Your task to perform on an android device: move an email to a new category in the gmail app Image 0: 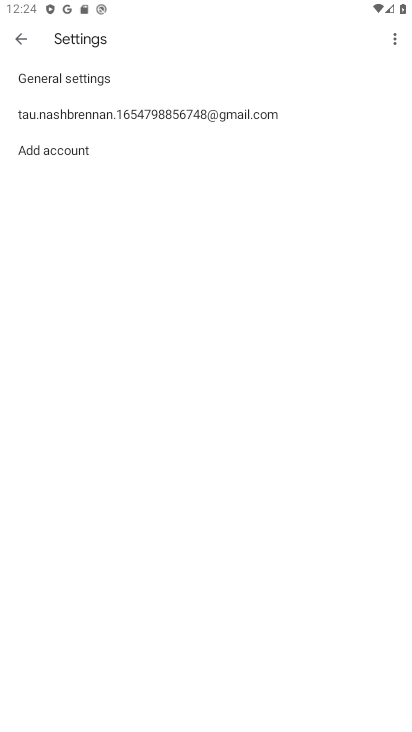
Step 0: click (17, 37)
Your task to perform on an android device: move an email to a new category in the gmail app Image 1: 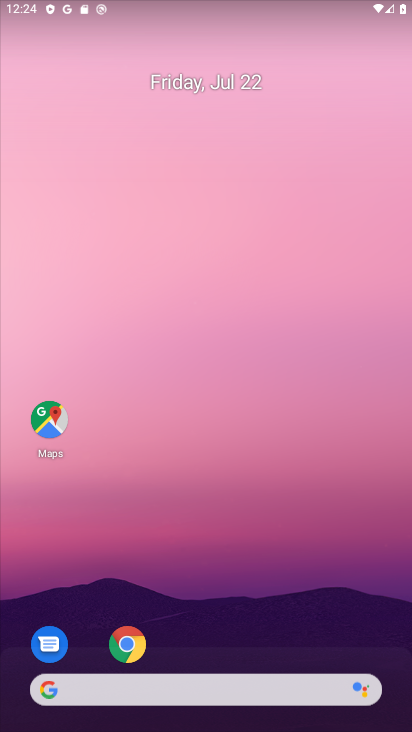
Step 1: drag from (257, 674) to (243, 199)
Your task to perform on an android device: move an email to a new category in the gmail app Image 2: 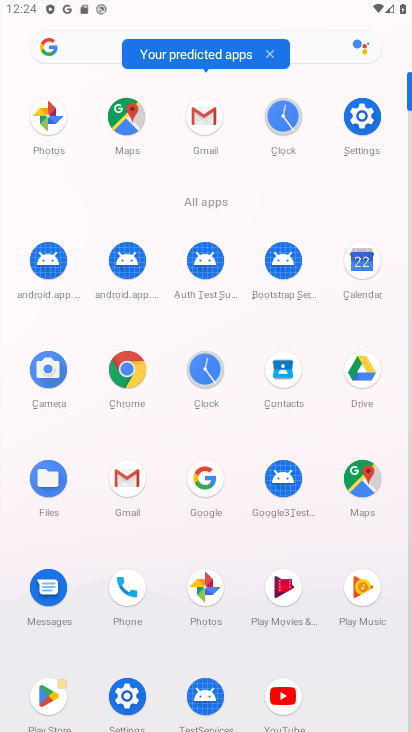
Step 2: click (194, 132)
Your task to perform on an android device: move an email to a new category in the gmail app Image 3: 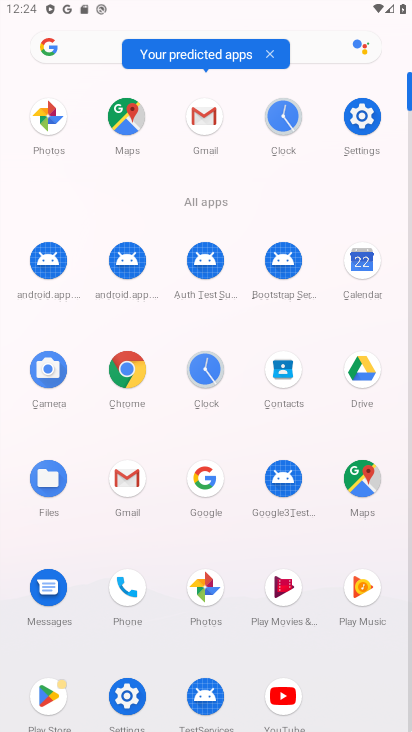
Step 3: click (194, 132)
Your task to perform on an android device: move an email to a new category in the gmail app Image 4: 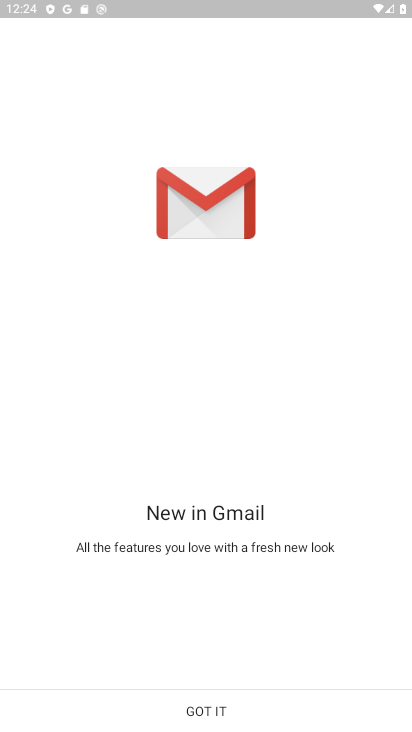
Step 4: click (214, 710)
Your task to perform on an android device: move an email to a new category in the gmail app Image 5: 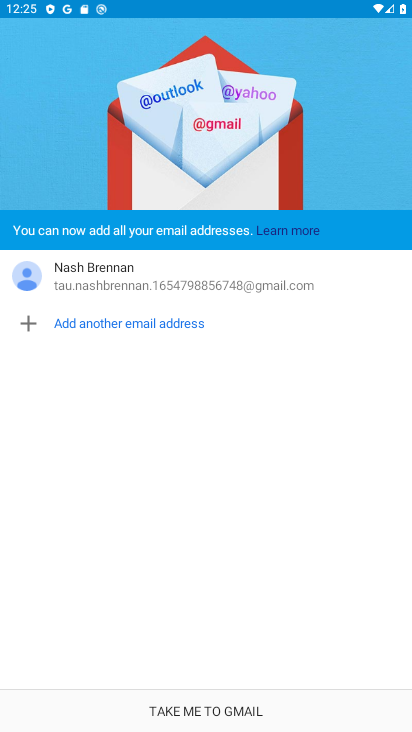
Step 5: click (213, 710)
Your task to perform on an android device: move an email to a new category in the gmail app Image 6: 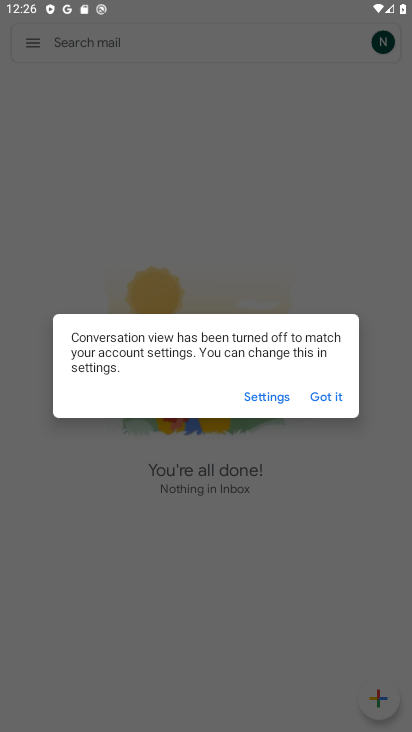
Step 6: click (319, 392)
Your task to perform on an android device: move an email to a new category in the gmail app Image 7: 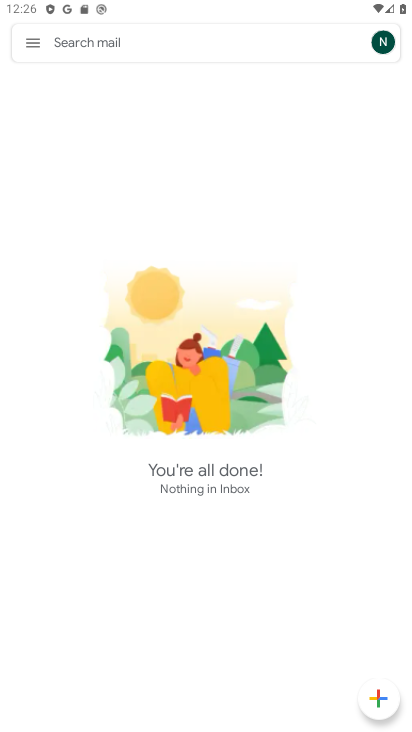
Step 7: task complete